Your task to perform on an android device: Go to calendar. Show me events next week Image 0: 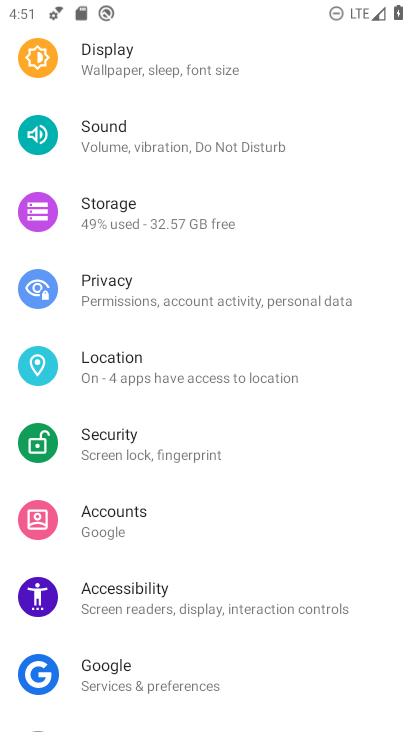
Step 0: press home button
Your task to perform on an android device: Go to calendar. Show me events next week Image 1: 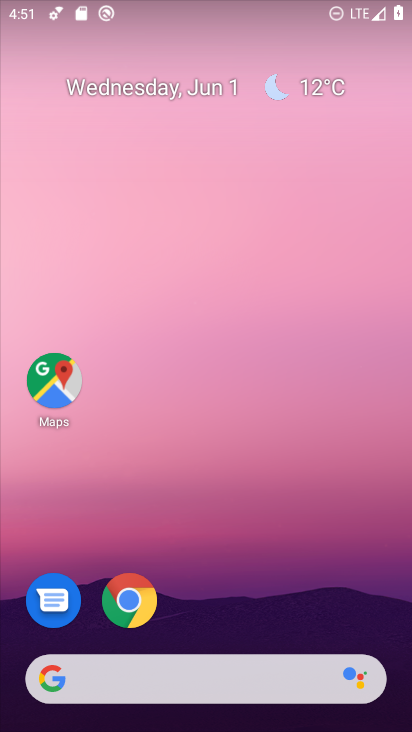
Step 1: drag from (371, 649) to (314, 128)
Your task to perform on an android device: Go to calendar. Show me events next week Image 2: 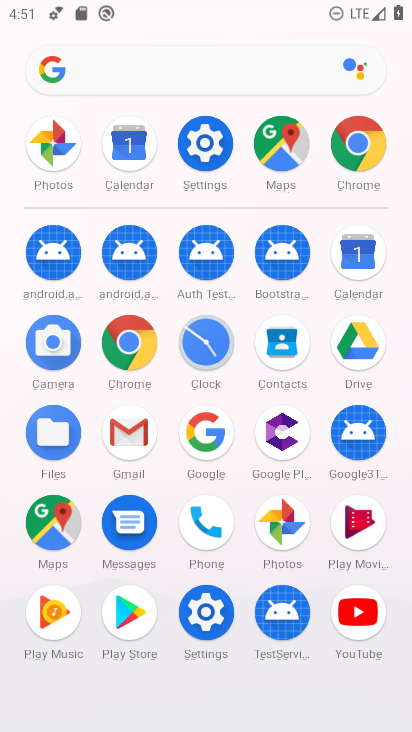
Step 2: click (356, 248)
Your task to perform on an android device: Go to calendar. Show me events next week Image 3: 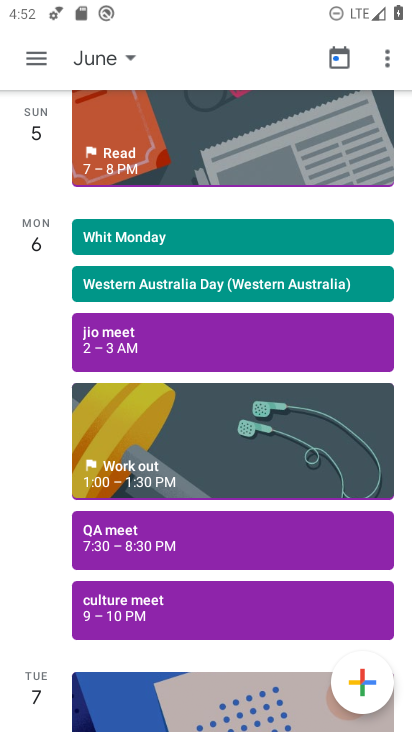
Step 3: click (44, 57)
Your task to perform on an android device: Go to calendar. Show me events next week Image 4: 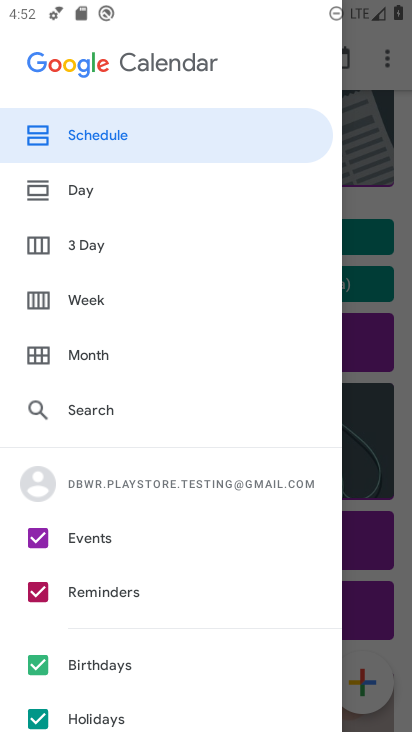
Step 4: click (93, 297)
Your task to perform on an android device: Go to calendar. Show me events next week Image 5: 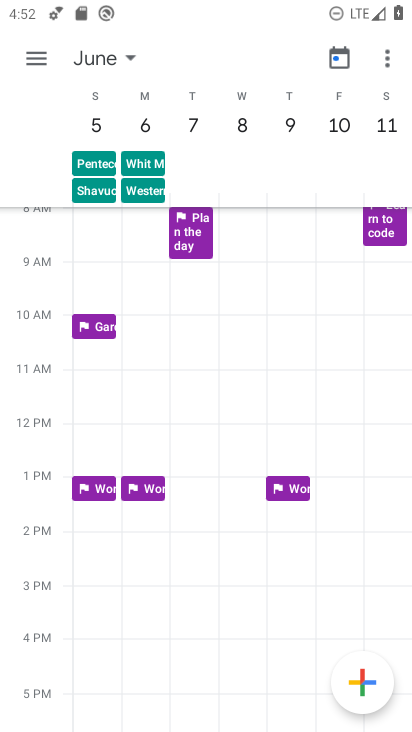
Step 5: click (132, 58)
Your task to perform on an android device: Go to calendar. Show me events next week Image 6: 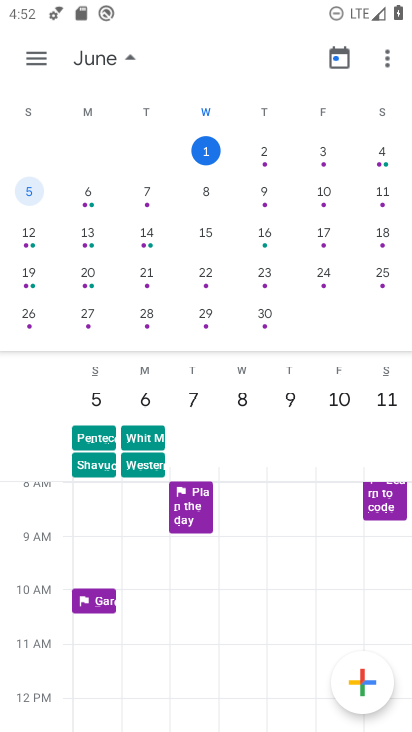
Step 6: task complete